Your task to perform on an android device: visit the assistant section in the google photos Image 0: 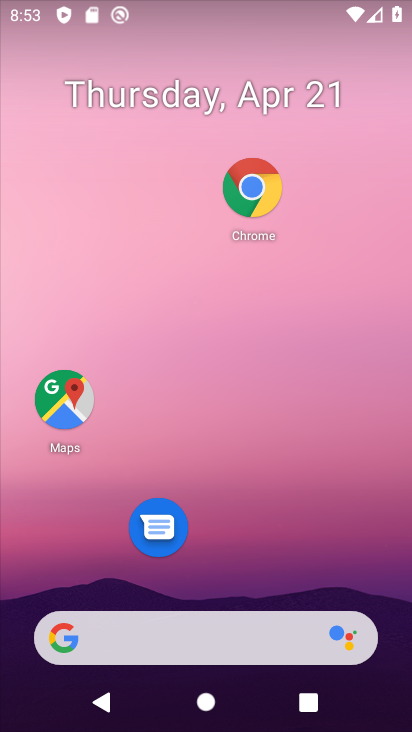
Step 0: drag from (182, 135) to (219, 32)
Your task to perform on an android device: visit the assistant section in the google photos Image 1: 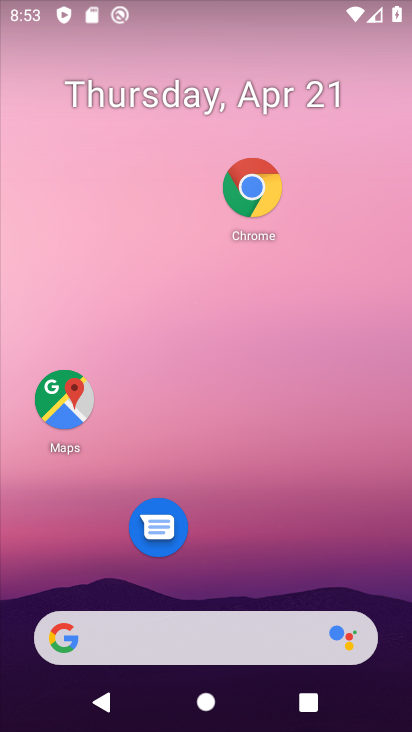
Step 1: drag from (224, 636) to (237, 228)
Your task to perform on an android device: visit the assistant section in the google photos Image 2: 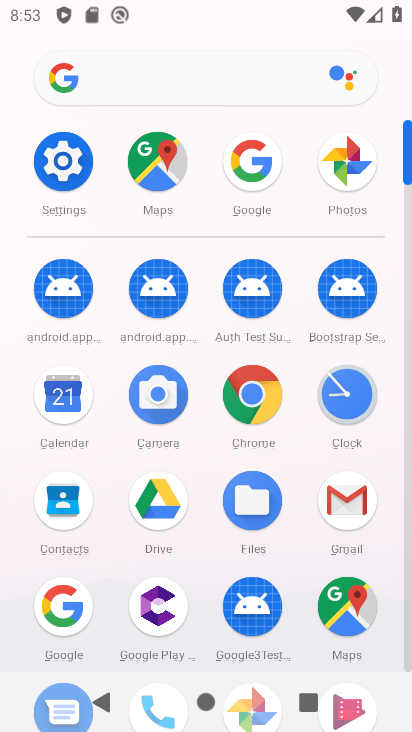
Step 2: click (407, 505)
Your task to perform on an android device: visit the assistant section in the google photos Image 3: 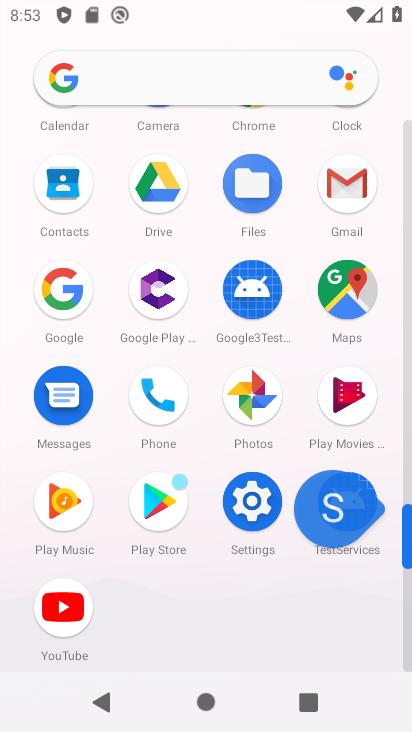
Step 3: click (407, 505)
Your task to perform on an android device: visit the assistant section in the google photos Image 4: 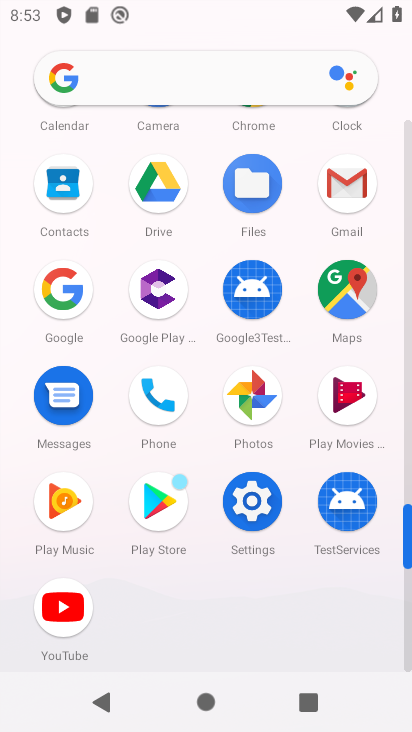
Step 4: click (273, 397)
Your task to perform on an android device: visit the assistant section in the google photos Image 5: 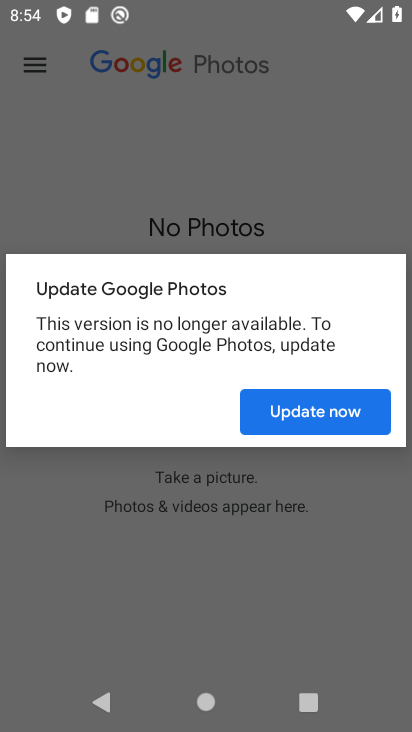
Step 5: task complete